Your task to perform on an android device: Open battery settings Image 0: 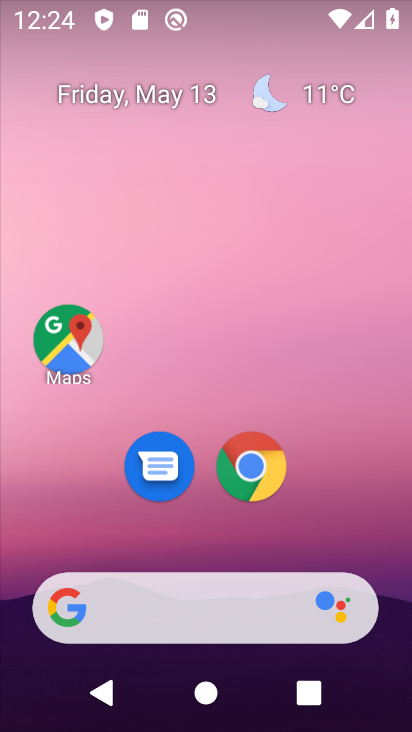
Step 0: drag from (245, 524) to (254, 21)
Your task to perform on an android device: Open battery settings Image 1: 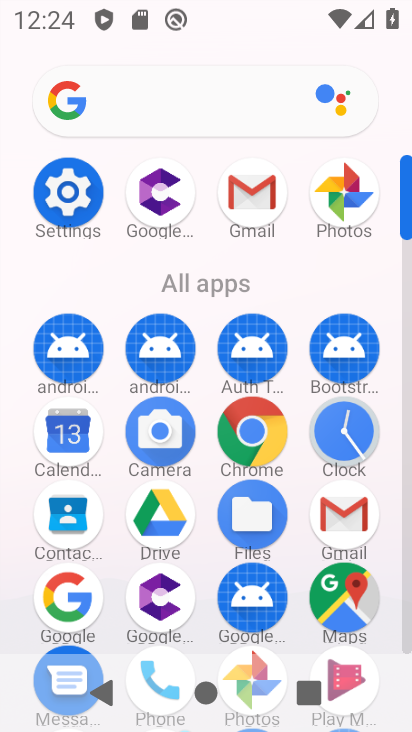
Step 1: click (74, 196)
Your task to perform on an android device: Open battery settings Image 2: 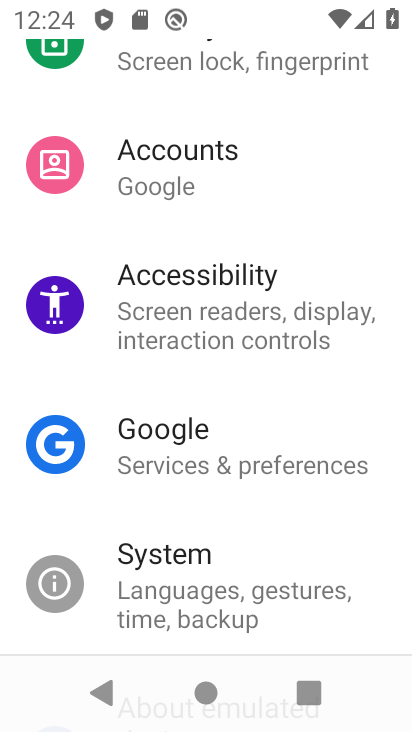
Step 2: drag from (137, 250) to (249, 586)
Your task to perform on an android device: Open battery settings Image 3: 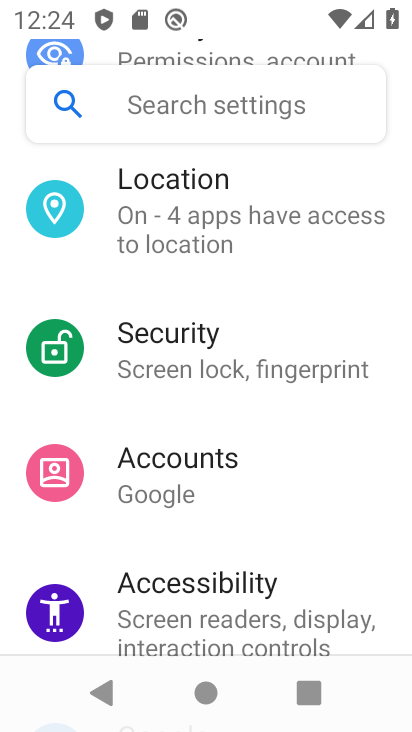
Step 3: drag from (218, 329) to (252, 619)
Your task to perform on an android device: Open battery settings Image 4: 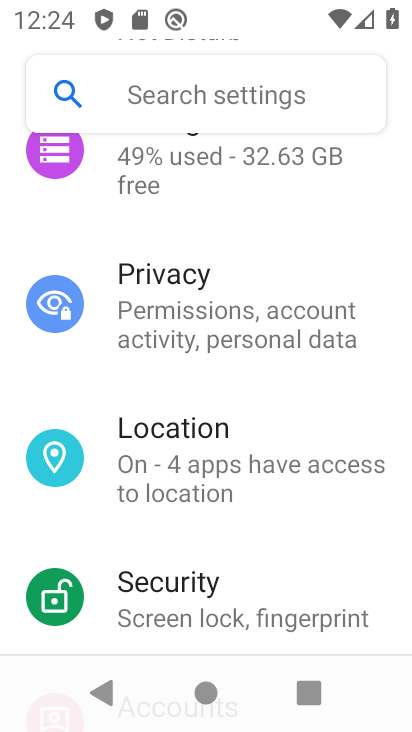
Step 4: drag from (250, 309) to (262, 563)
Your task to perform on an android device: Open battery settings Image 5: 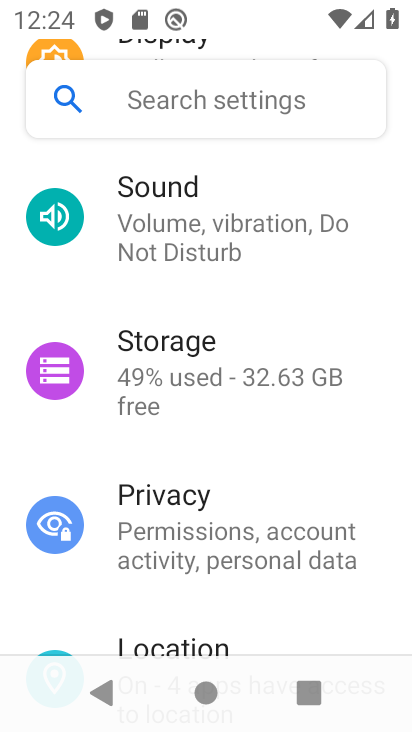
Step 5: drag from (202, 271) to (205, 580)
Your task to perform on an android device: Open battery settings Image 6: 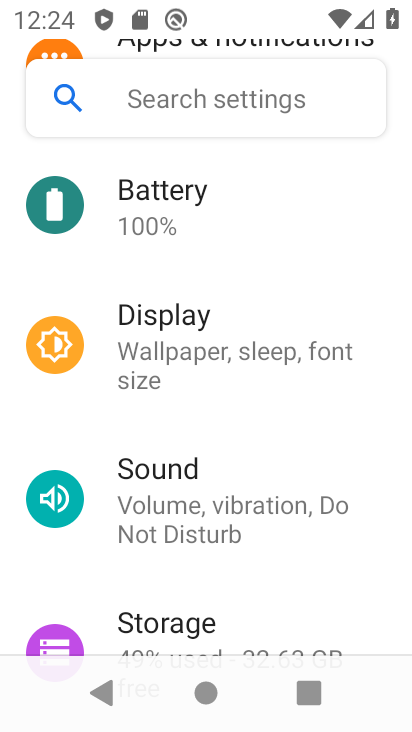
Step 6: click (177, 217)
Your task to perform on an android device: Open battery settings Image 7: 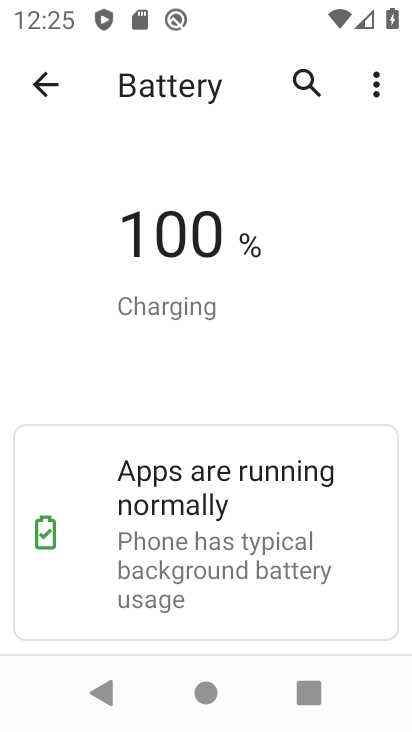
Step 7: task complete